Your task to perform on an android device: Open Android settings Image 0: 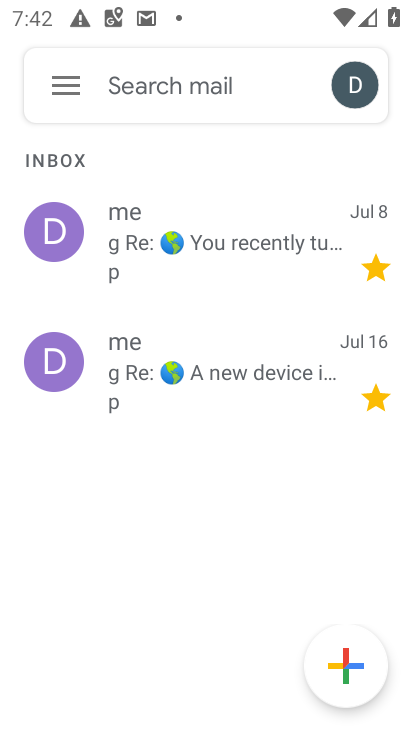
Step 0: press home button
Your task to perform on an android device: Open Android settings Image 1: 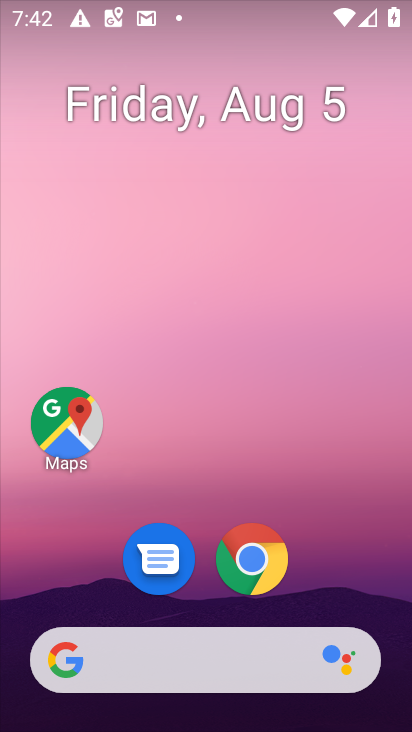
Step 1: drag from (212, 543) to (239, 6)
Your task to perform on an android device: Open Android settings Image 2: 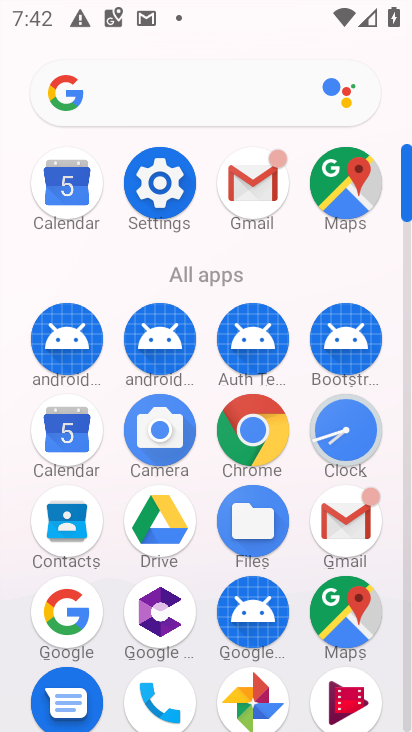
Step 2: click (165, 206)
Your task to perform on an android device: Open Android settings Image 3: 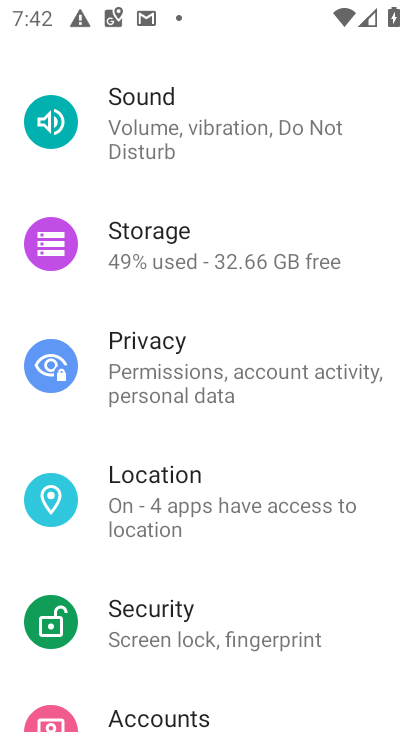
Step 3: drag from (228, 301) to (227, 265)
Your task to perform on an android device: Open Android settings Image 4: 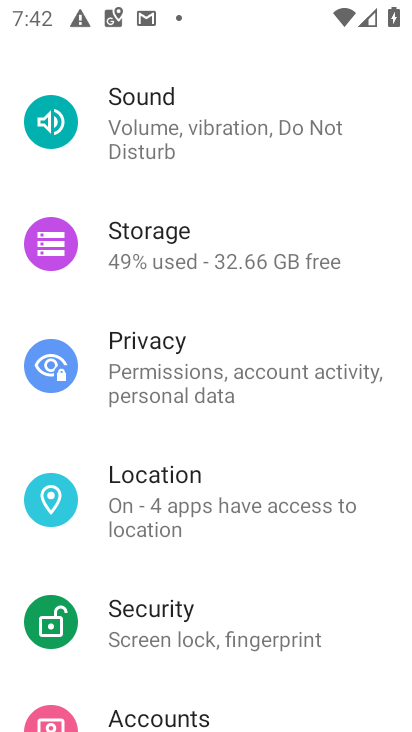
Step 4: drag from (206, 622) to (232, 339)
Your task to perform on an android device: Open Android settings Image 5: 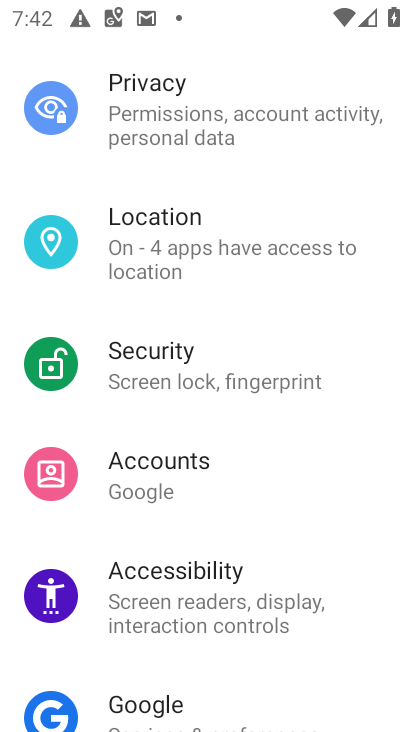
Step 5: drag from (219, 650) to (224, 173)
Your task to perform on an android device: Open Android settings Image 6: 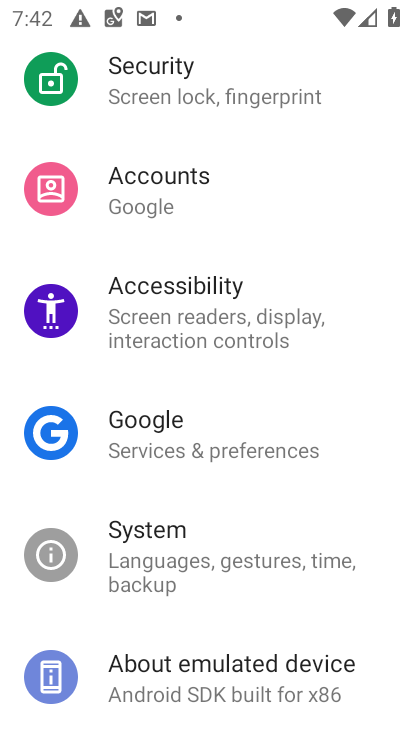
Step 6: click (158, 678)
Your task to perform on an android device: Open Android settings Image 7: 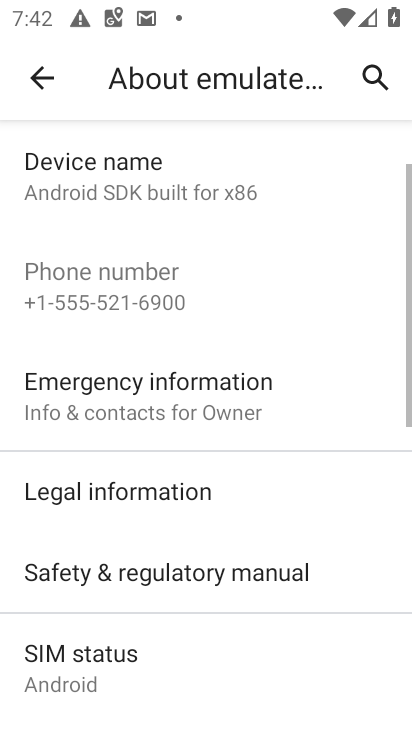
Step 7: drag from (178, 558) to (215, 336)
Your task to perform on an android device: Open Android settings Image 8: 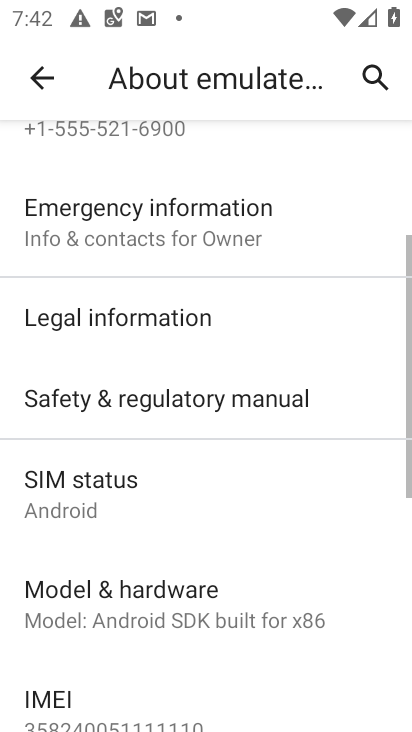
Step 8: drag from (138, 659) to (185, 311)
Your task to perform on an android device: Open Android settings Image 9: 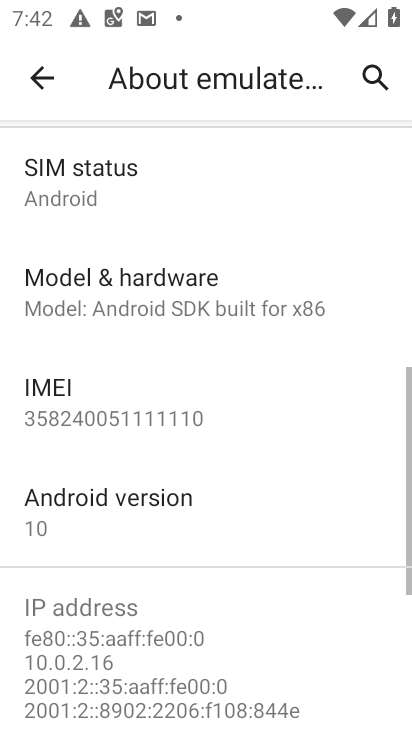
Step 9: click (118, 523)
Your task to perform on an android device: Open Android settings Image 10: 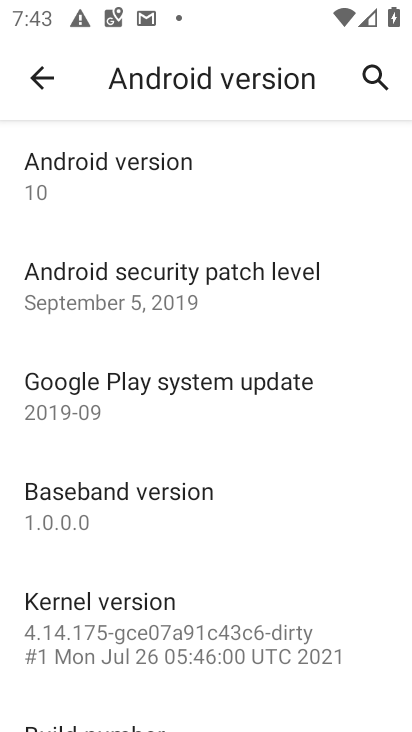
Step 10: task complete